Your task to perform on an android device: toggle notification dots Image 0: 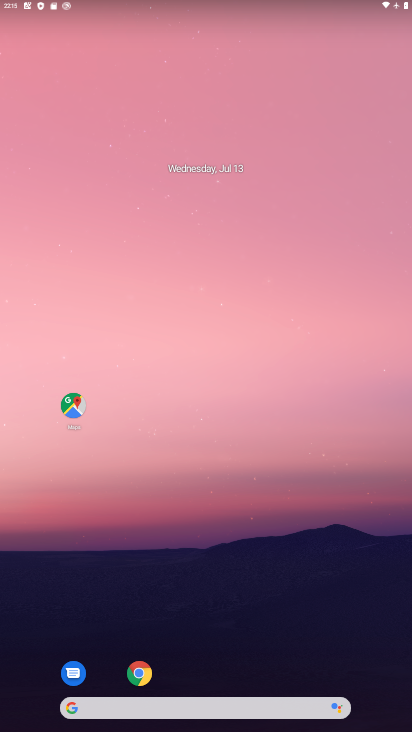
Step 0: drag from (203, 647) to (205, 176)
Your task to perform on an android device: toggle notification dots Image 1: 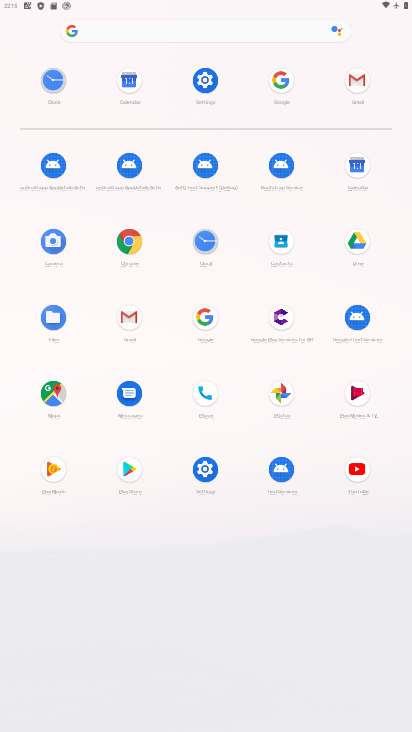
Step 1: click (221, 80)
Your task to perform on an android device: toggle notification dots Image 2: 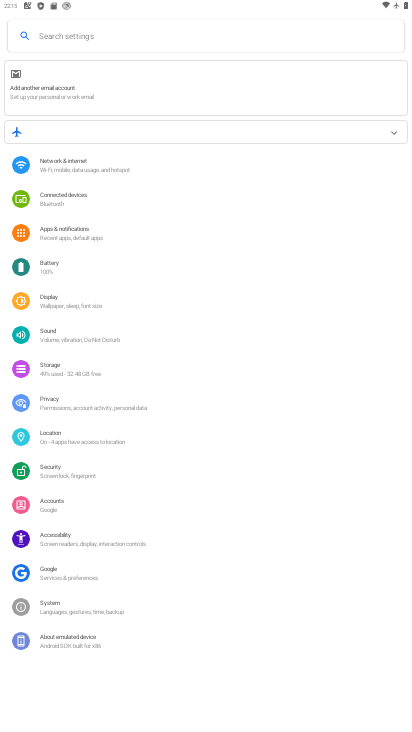
Step 2: click (66, 231)
Your task to perform on an android device: toggle notification dots Image 3: 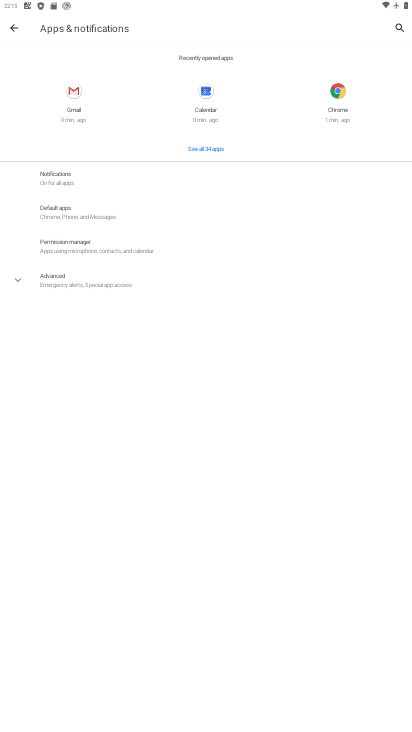
Step 3: click (111, 177)
Your task to perform on an android device: toggle notification dots Image 4: 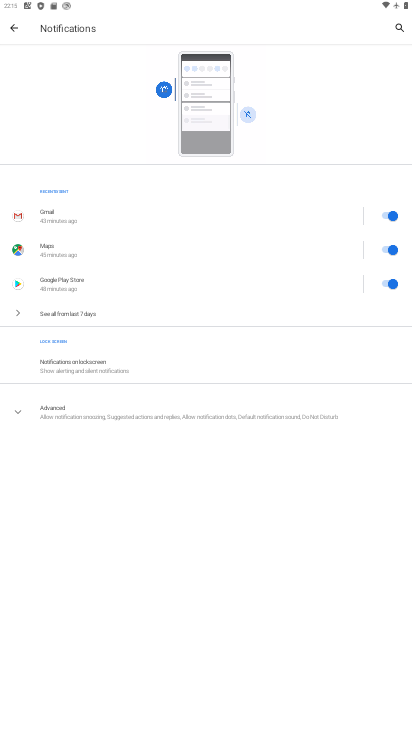
Step 4: click (183, 409)
Your task to perform on an android device: toggle notification dots Image 5: 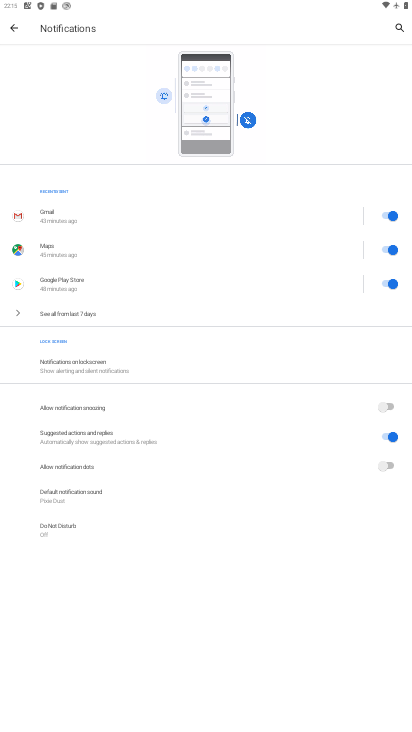
Step 5: click (388, 459)
Your task to perform on an android device: toggle notification dots Image 6: 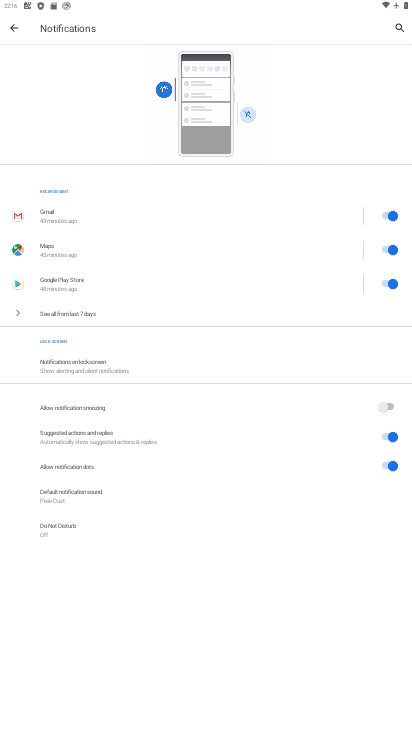
Step 6: task complete